Your task to perform on an android device: Go to Google Image 0: 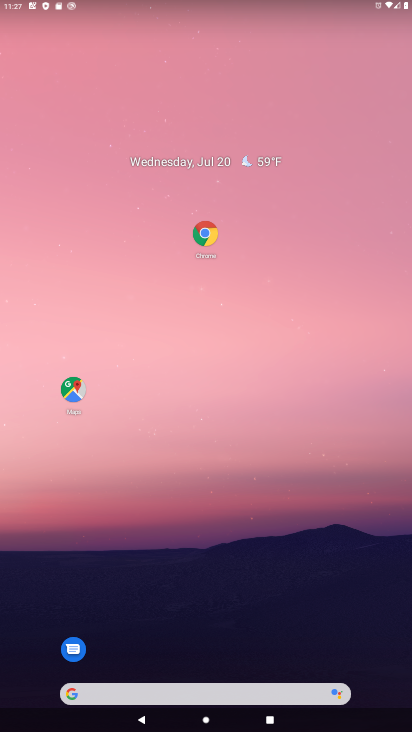
Step 0: drag from (166, 641) to (258, 46)
Your task to perform on an android device: Go to Google Image 1: 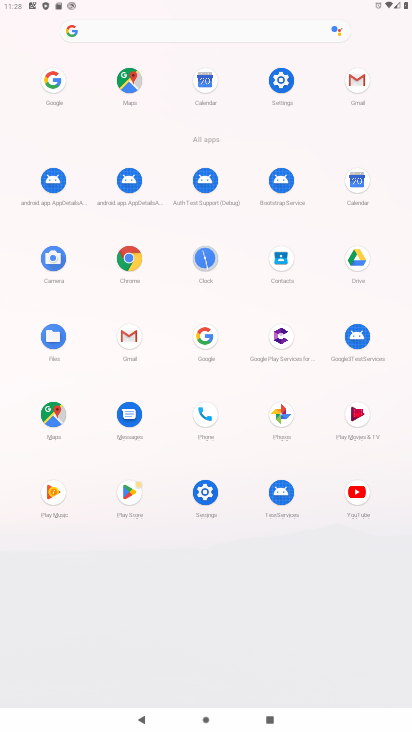
Step 1: click (206, 342)
Your task to perform on an android device: Go to Google Image 2: 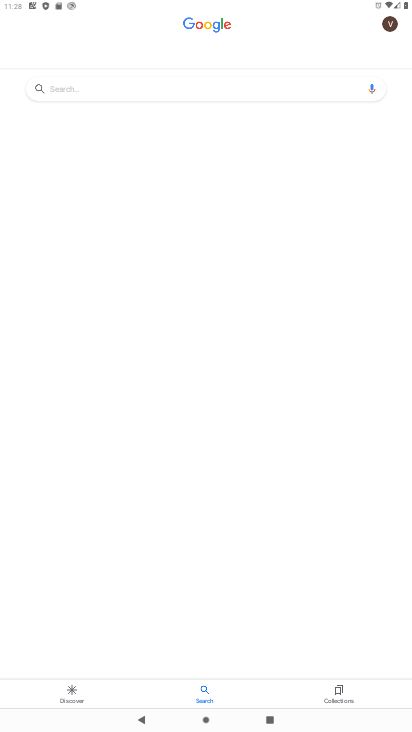
Step 2: task complete